Your task to perform on an android device: open a bookmark in the chrome app Image 0: 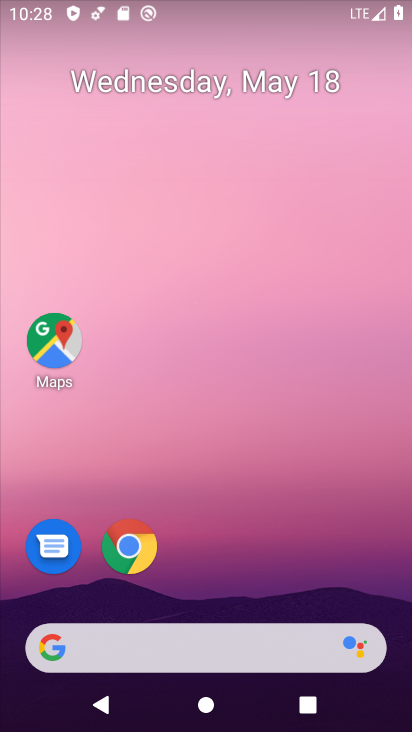
Step 0: click (125, 550)
Your task to perform on an android device: open a bookmark in the chrome app Image 1: 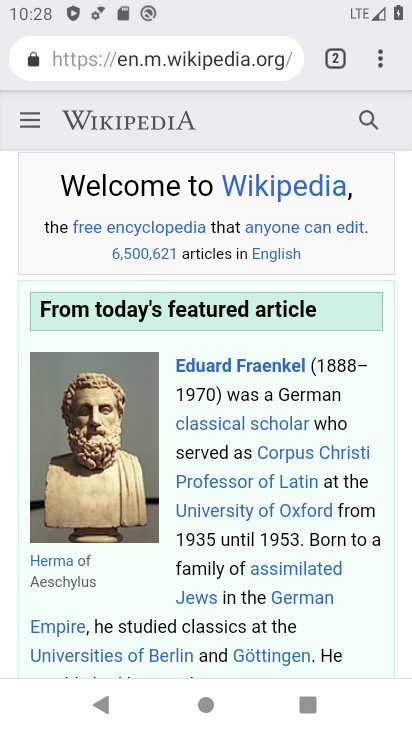
Step 1: click (379, 66)
Your task to perform on an android device: open a bookmark in the chrome app Image 2: 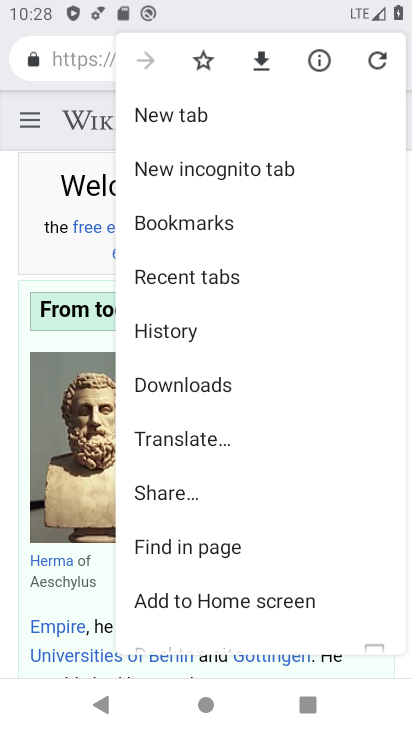
Step 2: click (185, 222)
Your task to perform on an android device: open a bookmark in the chrome app Image 3: 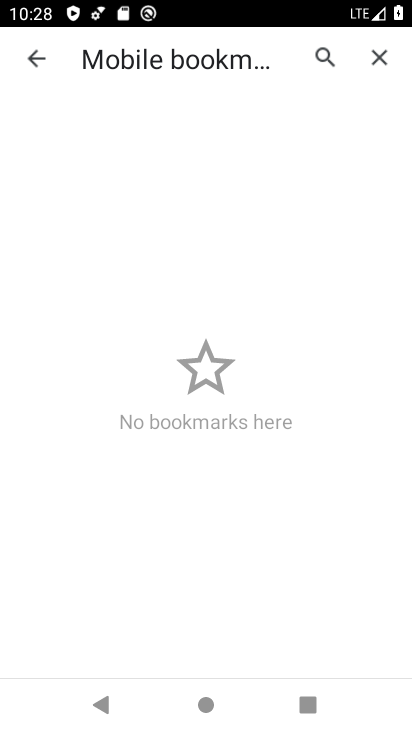
Step 3: task complete